Your task to perform on an android device: Open settings on Google Maps Image 0: 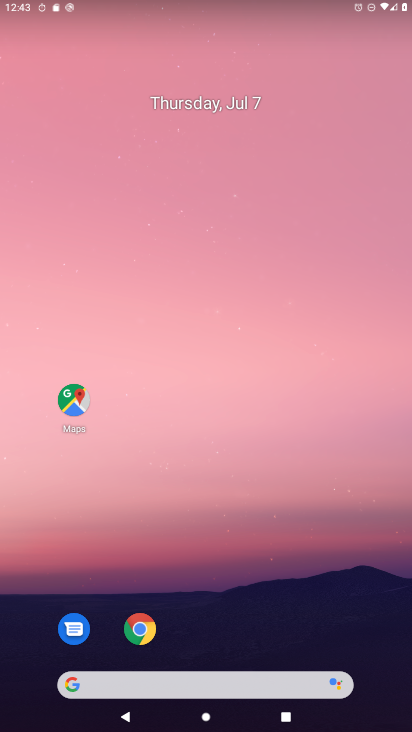
Step 0: click (68, 396)
Your task to perform on an android device: Open settings on Google Maps Image 1: 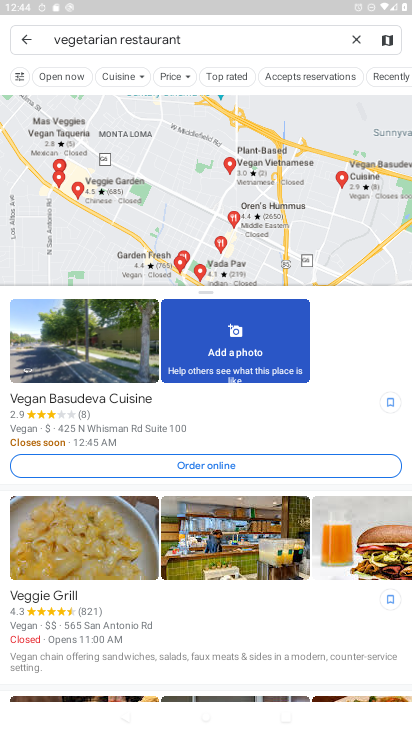
Step 1: click (20, 34)
Your task to perform on an android device: Open settings on Google Maps Image 2: 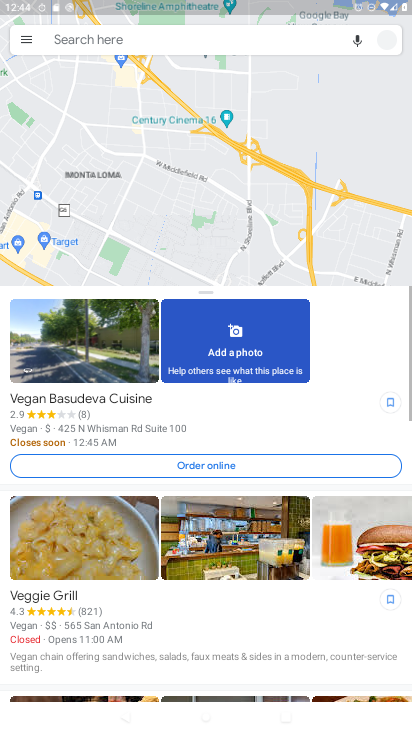
Step 2: click (26, 35)
Your task to perform on an android device: Open settings on Google Maps Image 3: 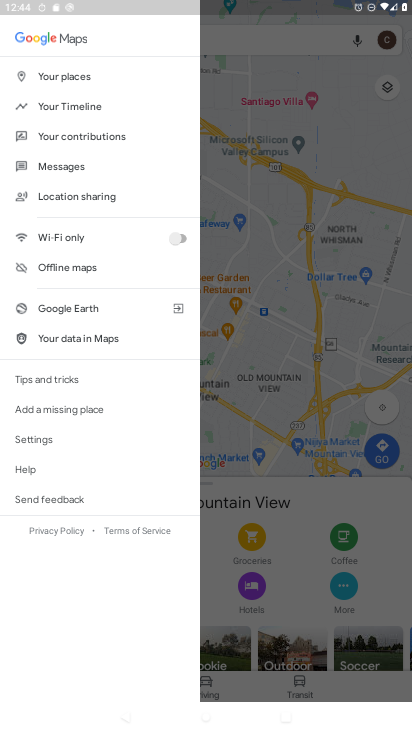
Step 3: click (46, 442)
Your task to perform on an android device: Open settings on Google Maps Image 4: 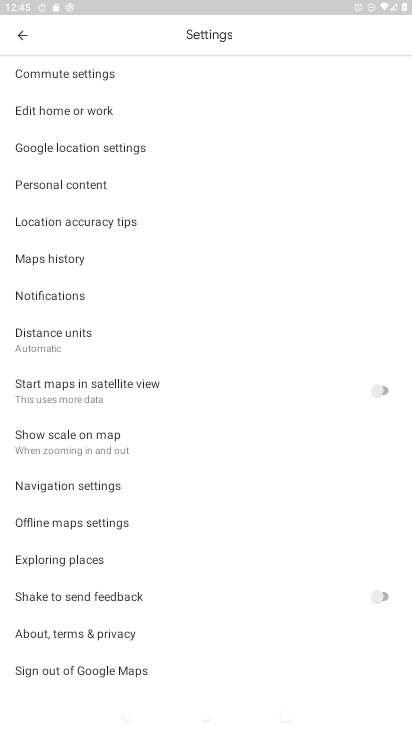
Step 4: task complete